Your task to perform on an android device: Search for Mexican restaurants on Maps Image 0: 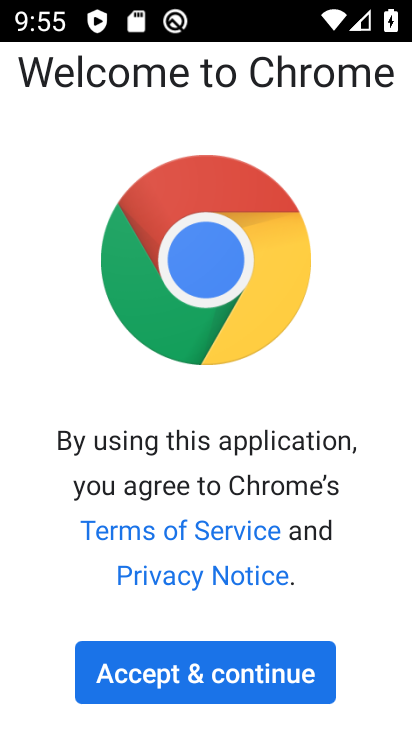
Step 0: press home button
Your task to perform on an android device: Search for Mexican restaurants on Maps Image 1: 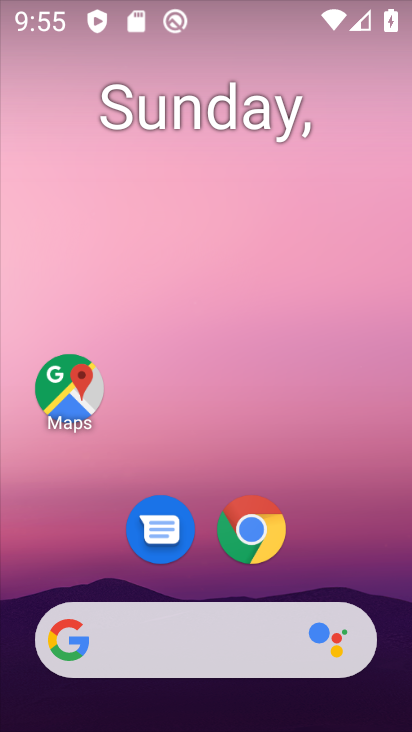
Step 1: drag from (334, 597) to (256, 8)
Your task to perform on an android device: Search for Mexican restaurants on Maps Image 2: 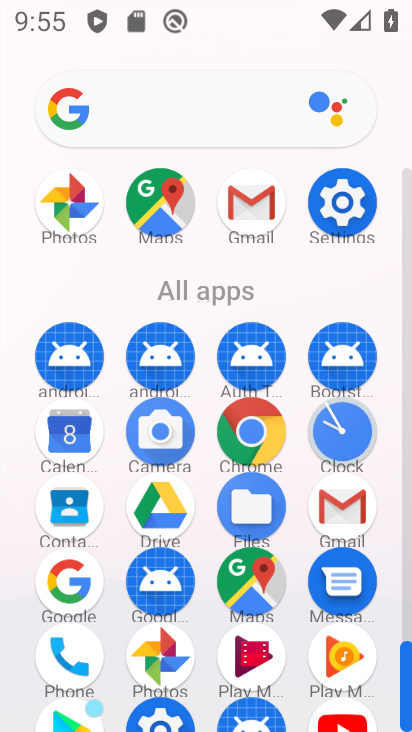
Step 2: click (277, 585)
Your task to perform on an android device: Search for Mexican restaurants on Maps Image 3: 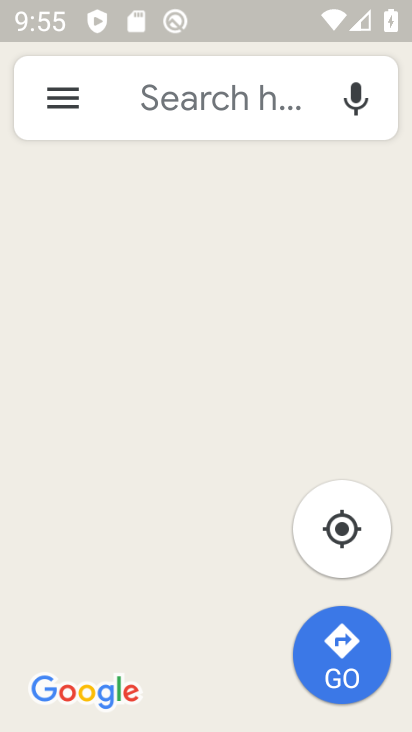
Step 3: click (202, 116)
Your task to perform on an android device: Search for Mexican restaurants on Maps Image 4: 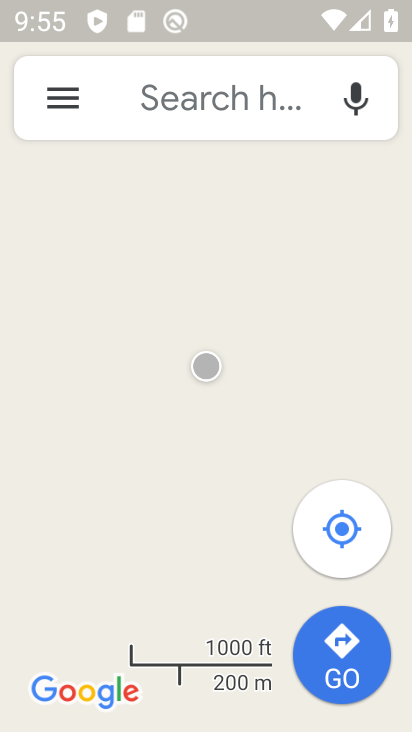
Step 4: click (202, 116)
Your task to perform on an android device: Search for Mexican restaurants on Maps Image 5: 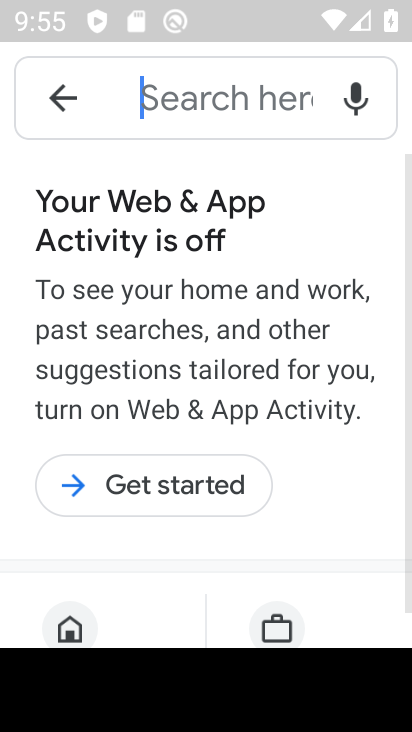
Step 5: click (214, 79)
Your task to perform on an android device: Search for Mexican restaurants on Maps Image 6: 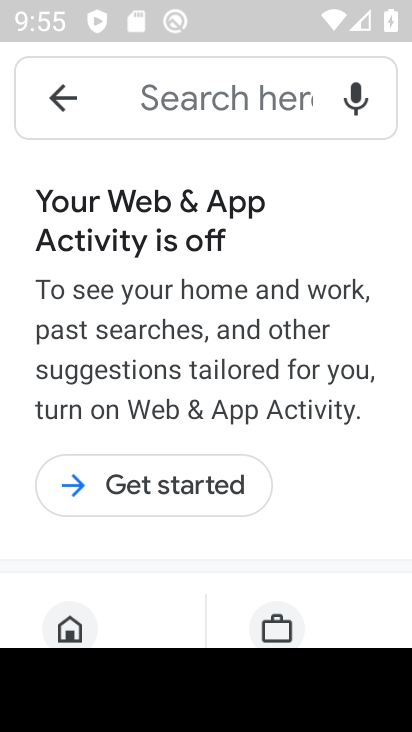
Step 6: click (214, 79)
Your task to perform on an android device: Search for Mexican restaurants on Maps Image 7: 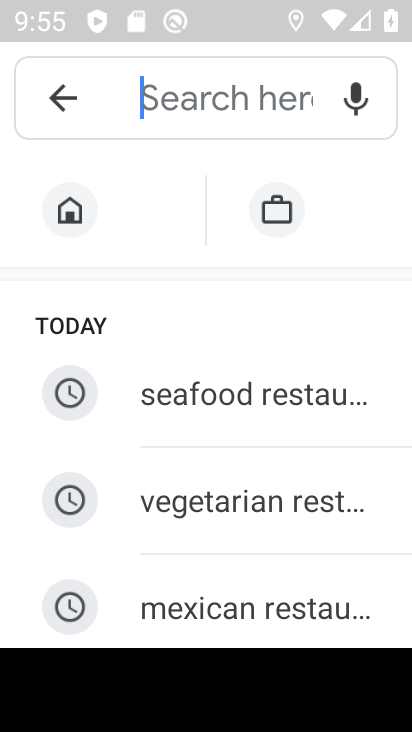
Step 7: type "mexican "
Your task to perform on an android device: Search for Mexican restaurants on Maps Image 8: 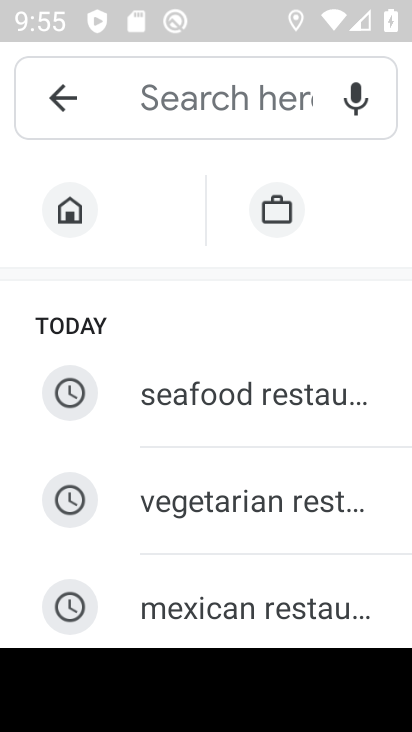
Step 8: click (329, 612)
Your task to perform on an android device: Search for Mexican restaurants on Maps Image 9: 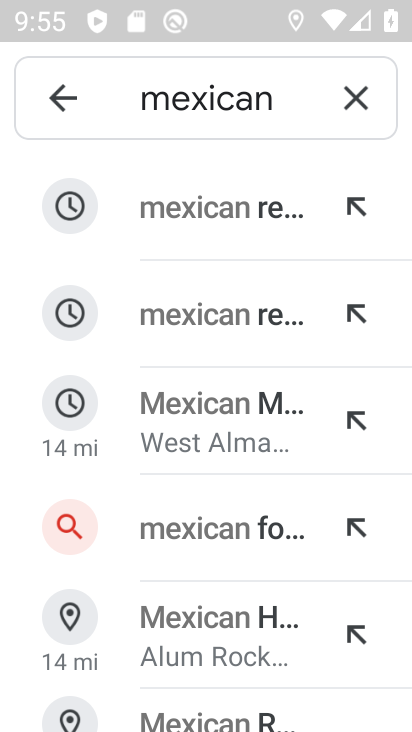
Step 9: click (242, 240)
Your task to perform on an android device: Search for Mexican restaurants on Maps Image 10: 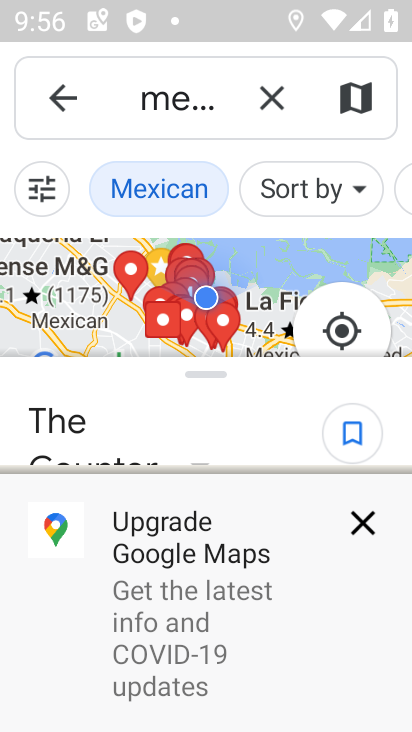
Step 10: click (367, 517)
Your task to perform on an android device: Search for Mexican restaurants on Maps Image 11: 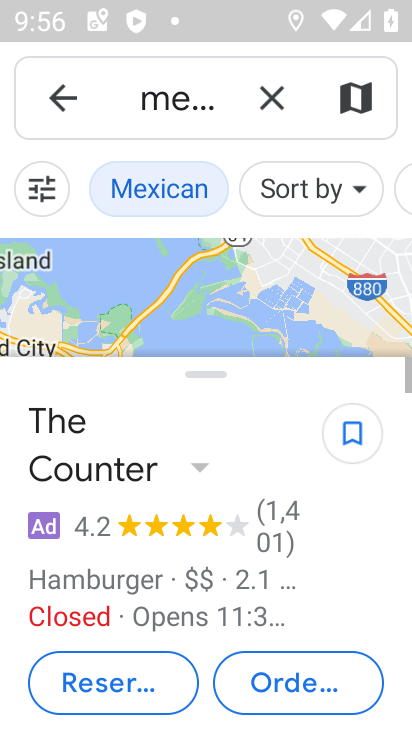
Step 11: task complete